Your task to perform on an android device: turn notification dots off Image 0: 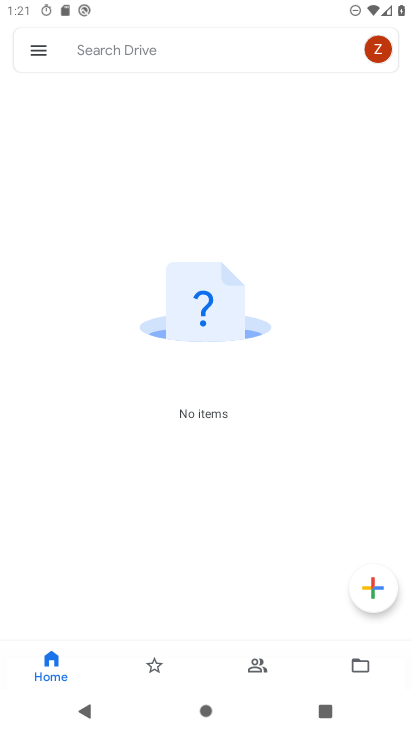
Step 0: press home button
Your task to perform on an android device: turn notification dots off Image 1: 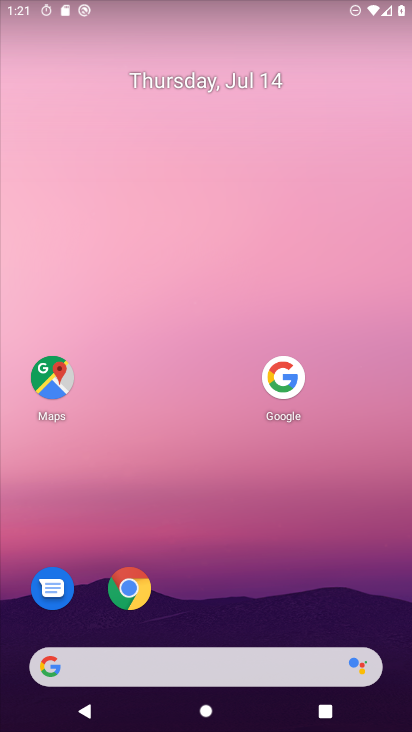
Step 1: drag from (205, 663) to (311, 81)
Your task to perform on an android device: turn notification dots off Image 2: 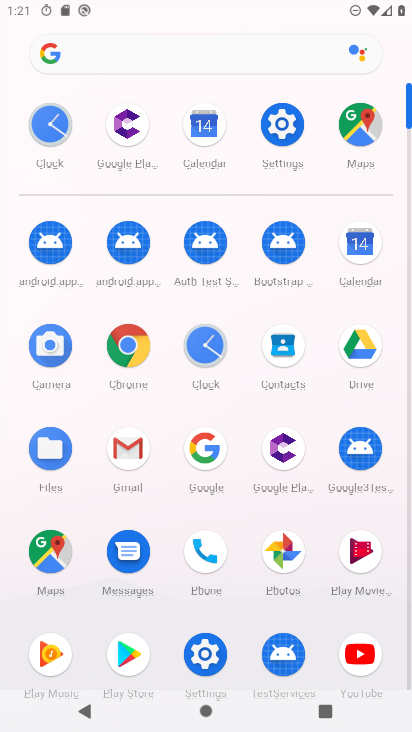
Step 2: click (283, 122)
Your task to perform on an android device: turn notification dots off Image 3: 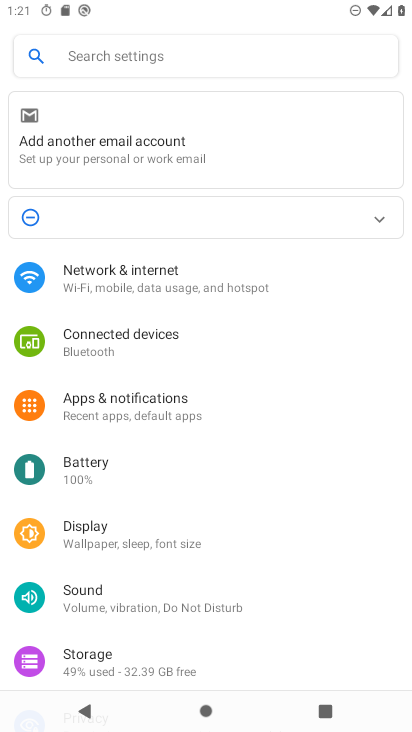
Step 3: click (141, 402)
Your task to perform on an android device: turn notification dots off Image 4: 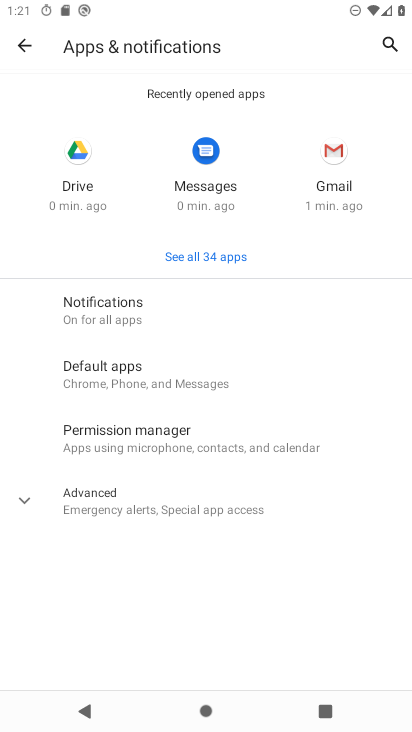
Step 4: click (113, 311)
Your task to perform on an android device: turn notification dots off Image 5: 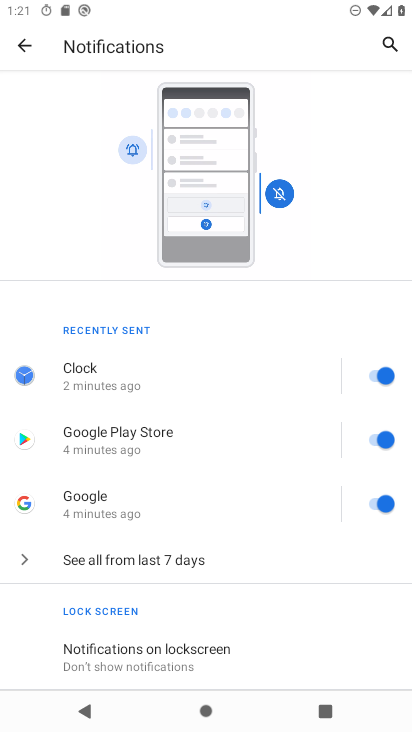
Step 5: drag from (251, 601) to (354, 216)
Your task to perform on an android device: turn notification dots off Image 6: 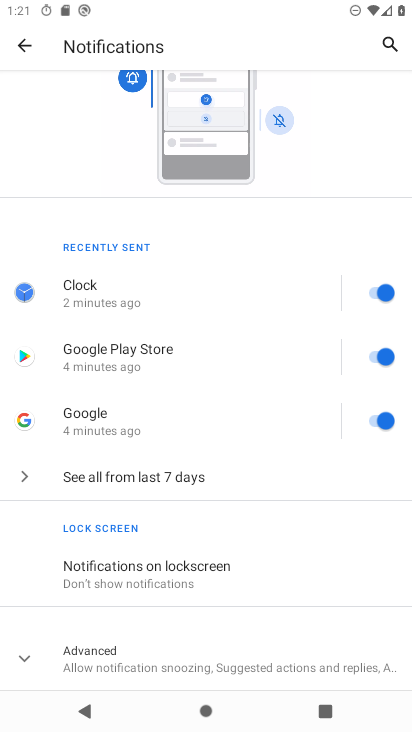
Step 6: click (112, 645)
Your task to perform on an android device: turn notification dots off Image 7: 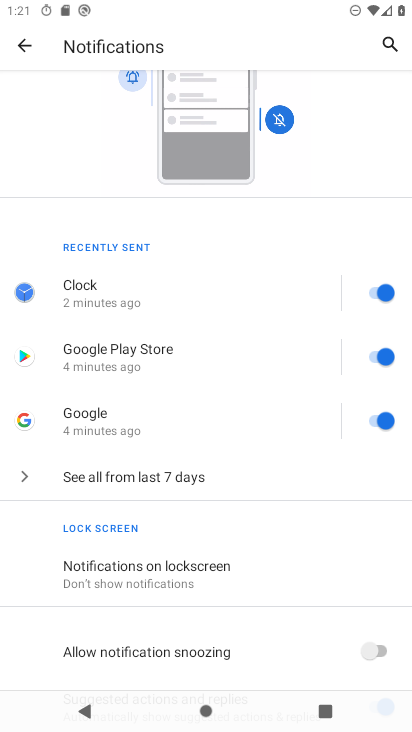
Step 7: drag from (194, 604) to (308, 176)
Your task to perform on an android device: turn notification dots off Image 8: 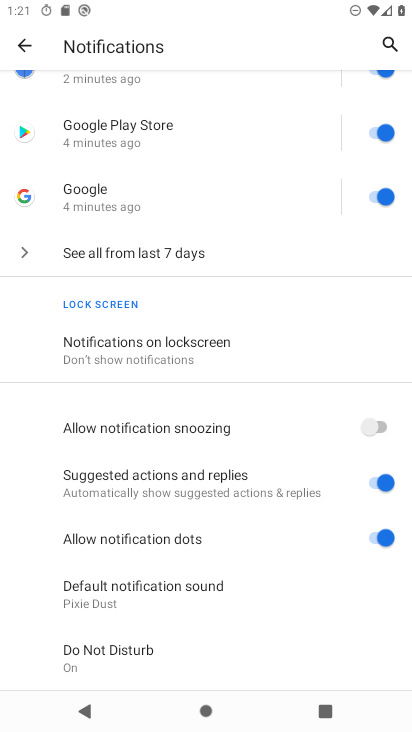
Step 8: click (373, 537)
Your task to perform on an android device: turn notification dots off Image 9: 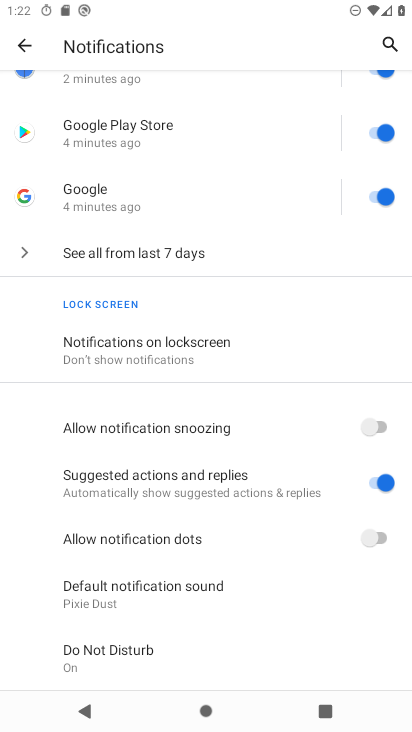
Step 9: task complete